Your task to perform on an android device: move a message to another label in the gmail app Image 0: 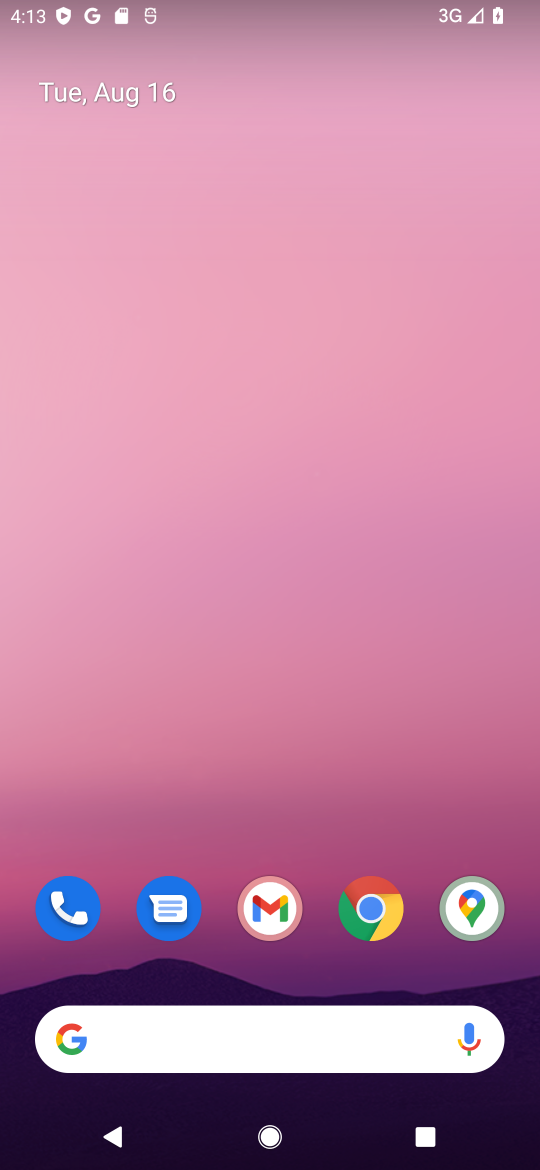
Step 0: click (269, 909)
Your task to perform on an android device: move a message to another label in the gmail app Image 1: 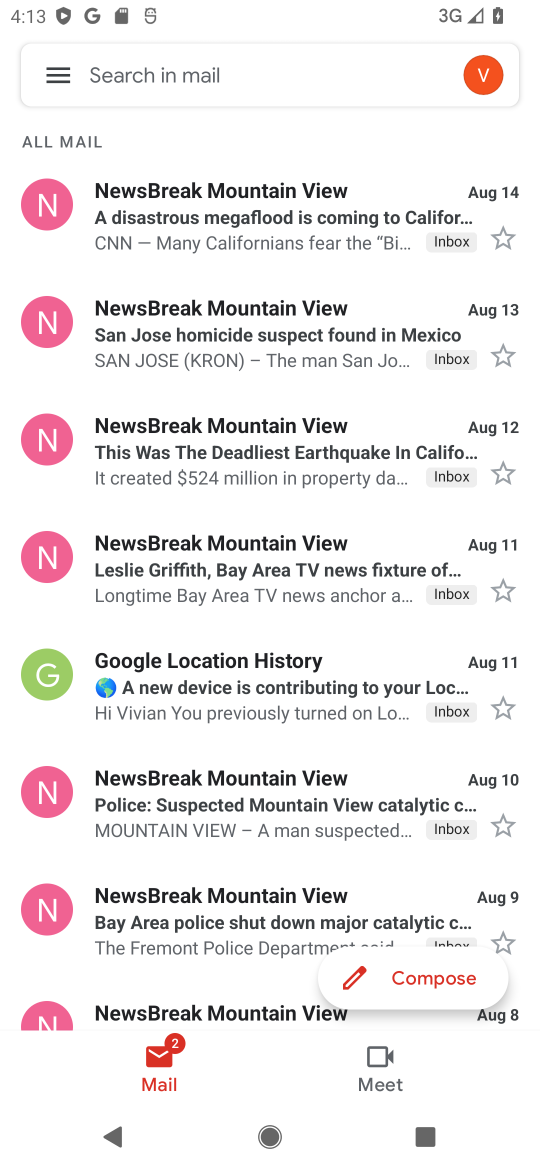
Step 1: click (316, 236)
Your task to perform on an android device: move a message to another label in the gmail app Image 2: 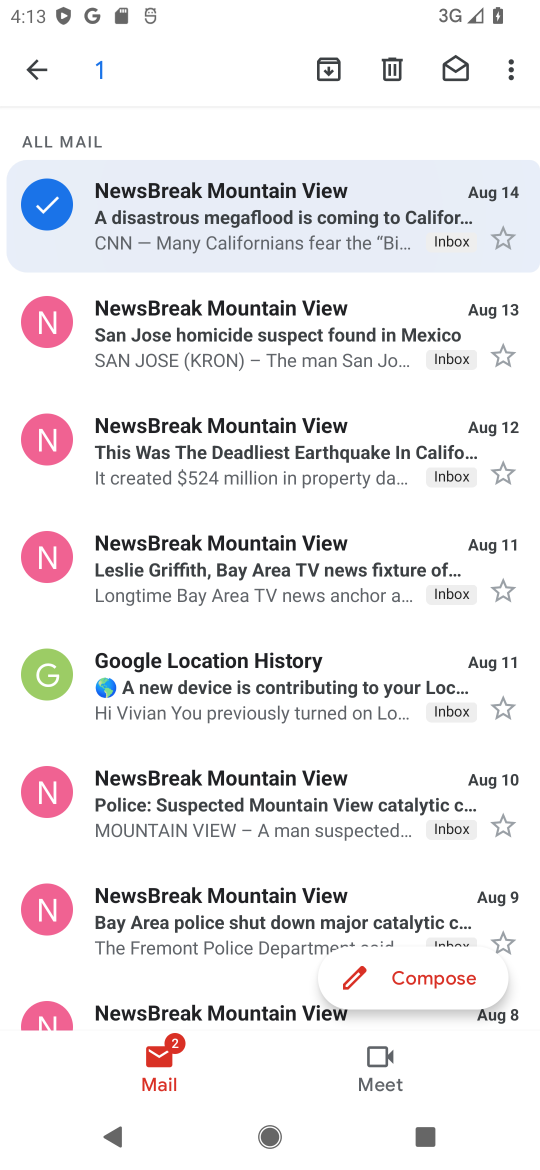
Step 2: click (508, 74)
Your task to perform on an android device: move a message to another label in the gmail app Image 3: 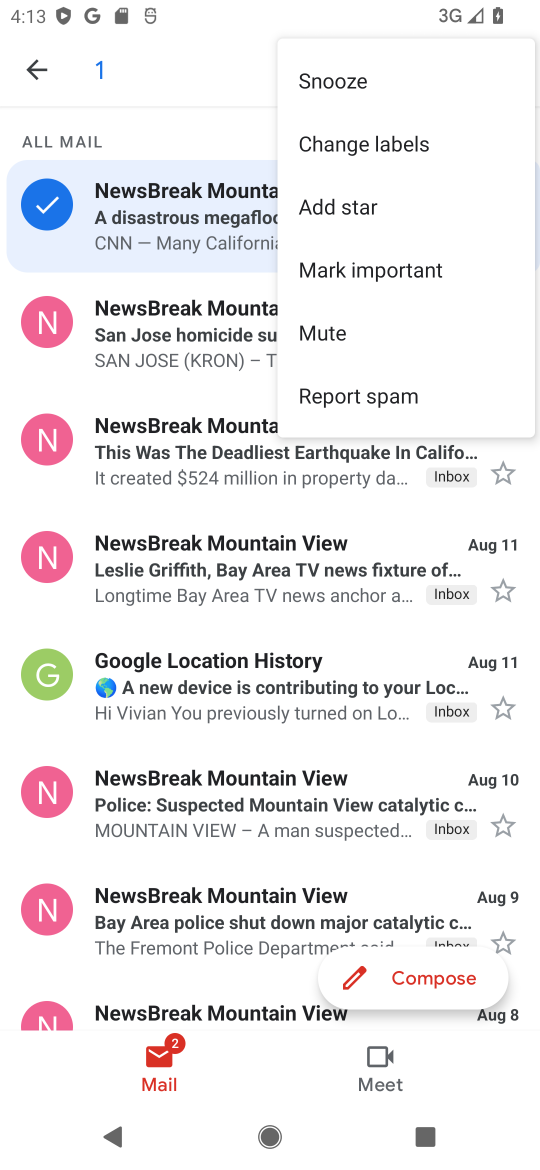
Step 3: click (189, 74)
Your task to perform on an android device: move a message to another label in the gmail app Image 4: 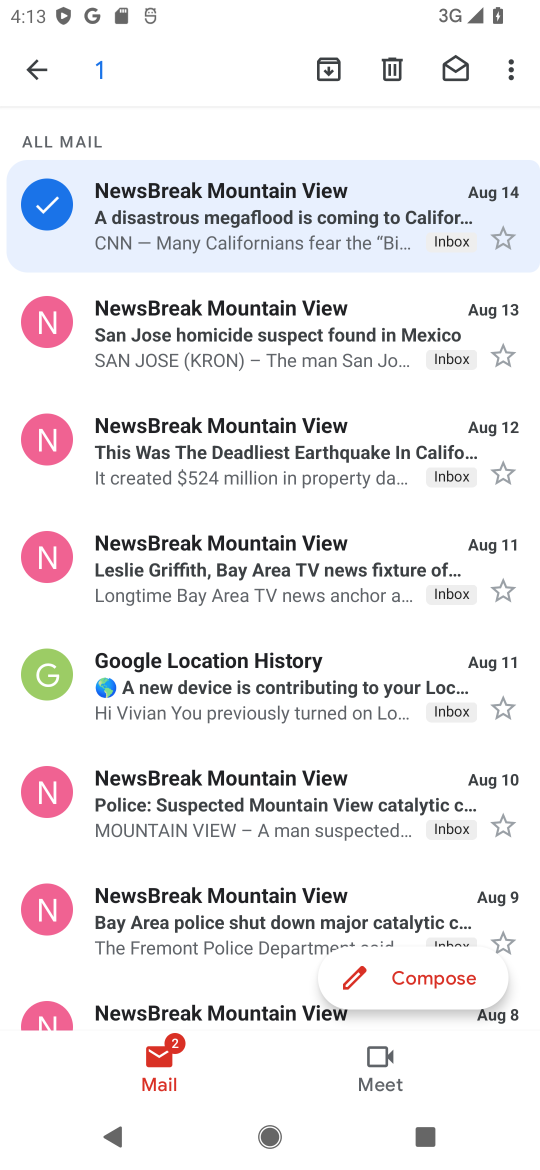
Step 4: click (509, 60)
Your task to perform on an android device: move a message to another label in the gmail app Image 5: 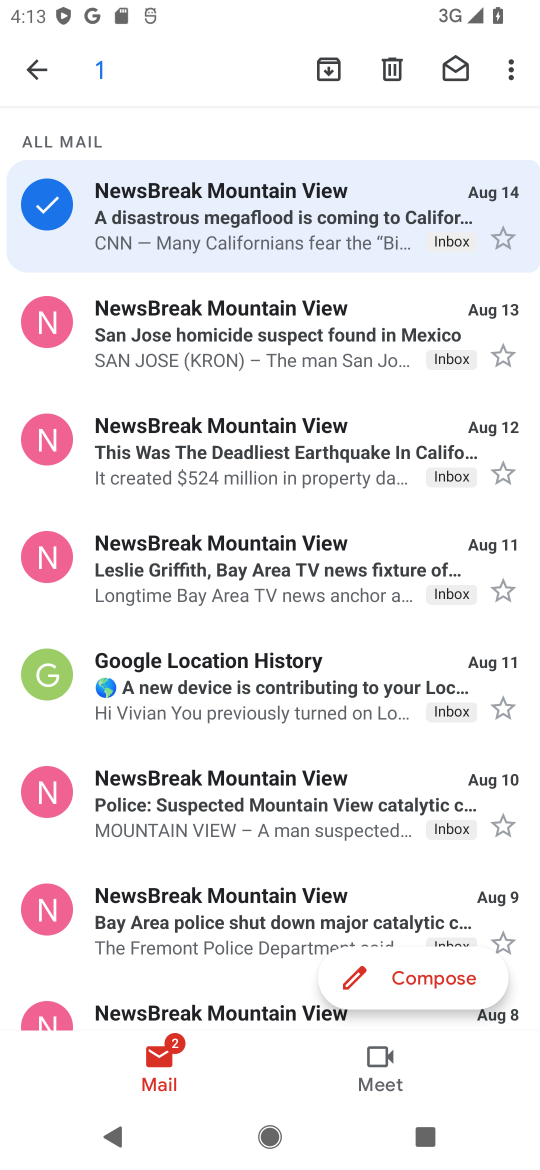
Step 5: click (506, 72)
Your task to perform on an android device: move a message to another label in the gmail app Image 6: 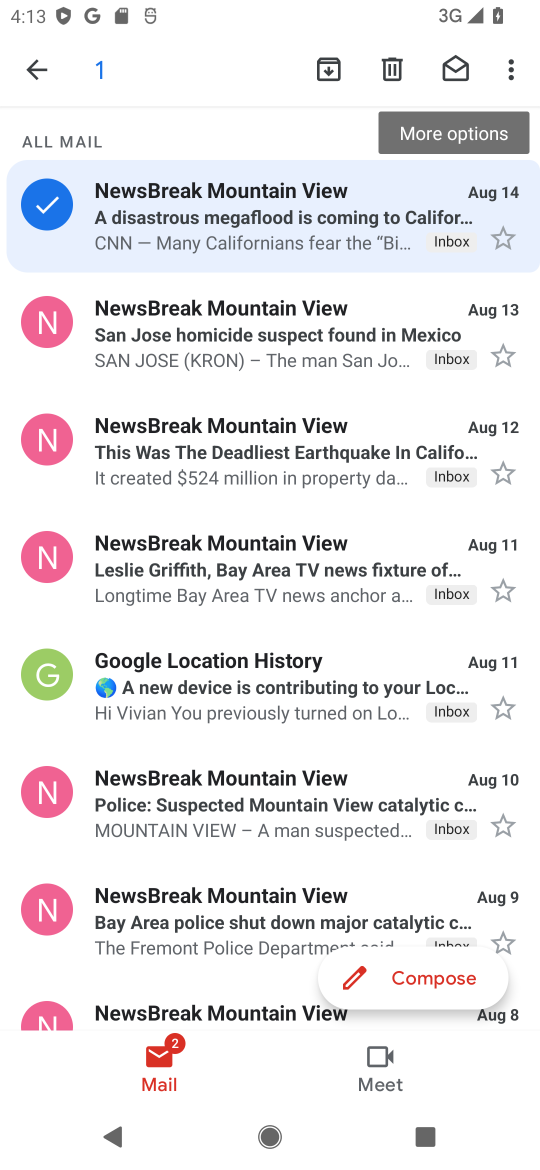
Step 6: click (511, 72)
Your task to perform on an android device: move a message to another label in the gmail app Image 7: 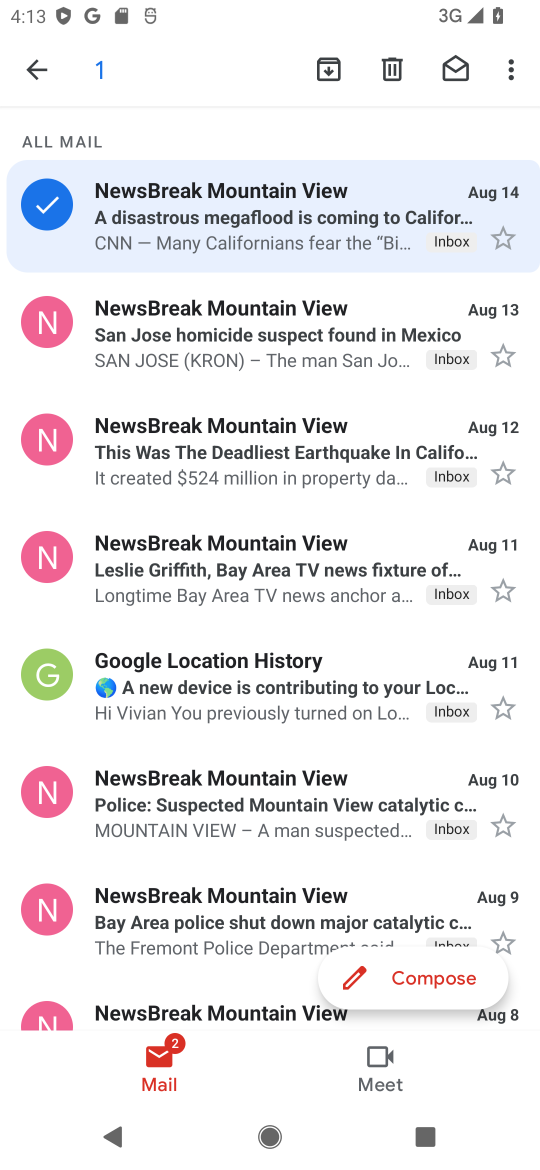
Step 7: click (514, 72)
Your task to perform on an android device: move a message to another label in the gmail app Image 8: 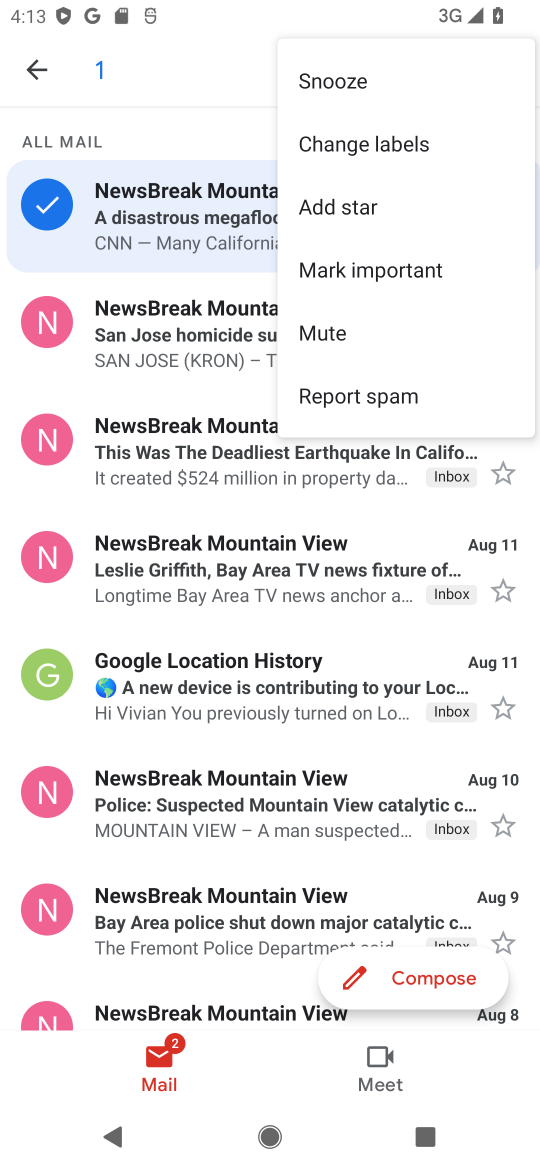
Step 8: click (409, 135)
Your task to perform on an android device: move a message to another label in the gmail app Image 9: 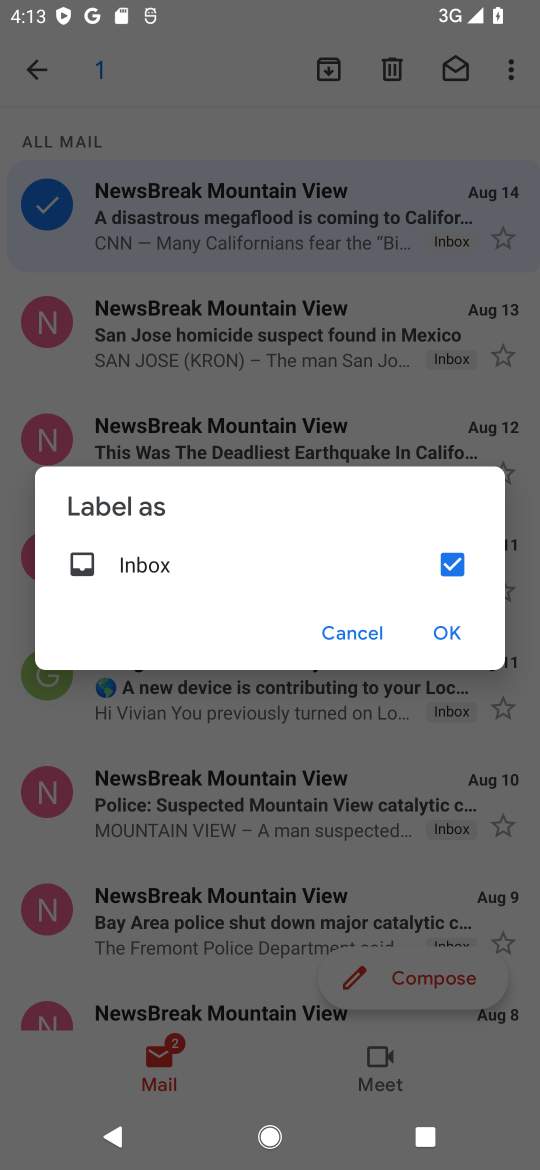
Step 9: click (446, 640)
Your task to perform on an android device: move a message to another label in the gmail app Image 10: 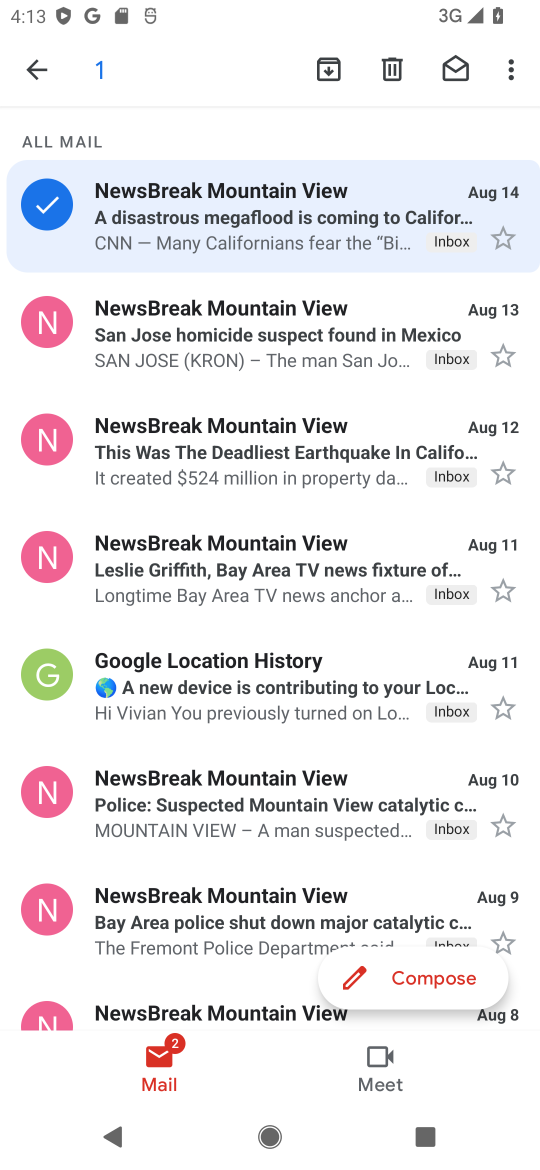
Step 10: task complete